Your task to perform on an android device: turn on wifi Image 0: 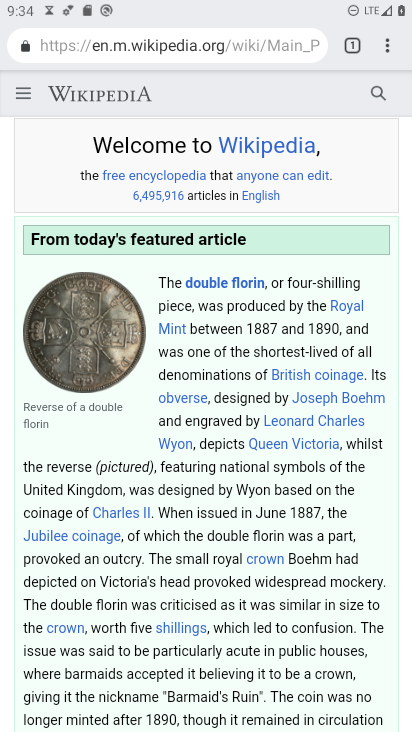
Step 0: press home button
Your task to perform on an android device: turn on wifi Image 1: 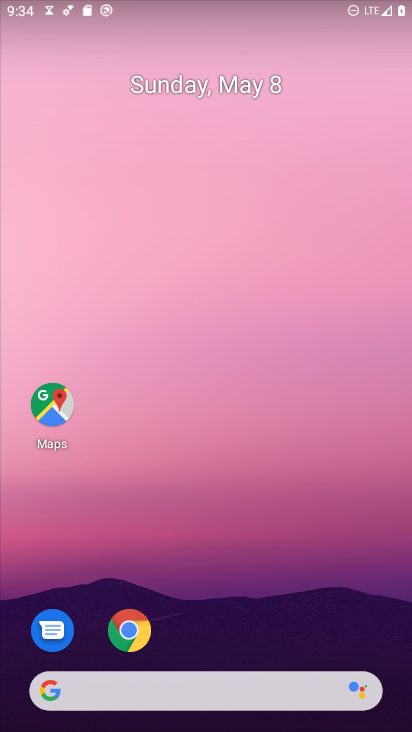
Step 1: drag from (163, 668) to (317, 8)
Your task to perform on an android device: turn on wifi Image 2: 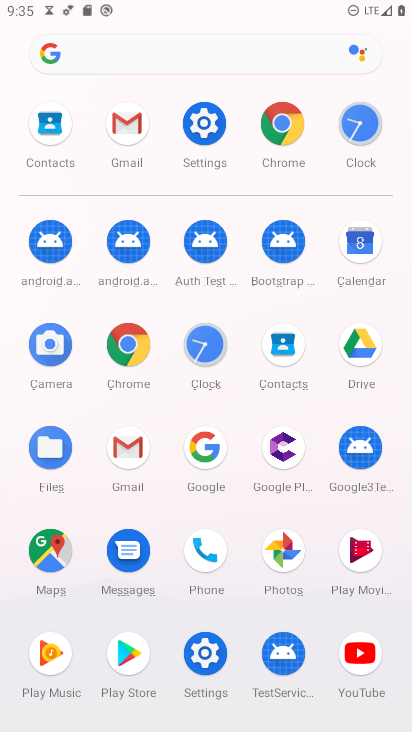
Step 2: click (209, 129)
Your task to perform on an android device: turn on wifi Image 3: 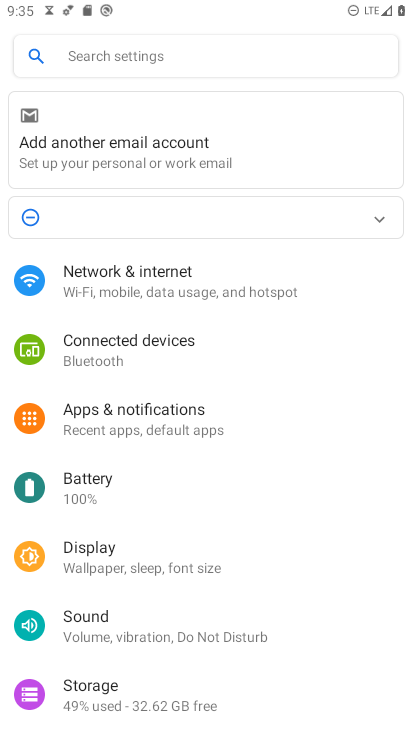
Step 3: click (163, 290)
Your task to perform on an android device: turn on wifi Image 4: 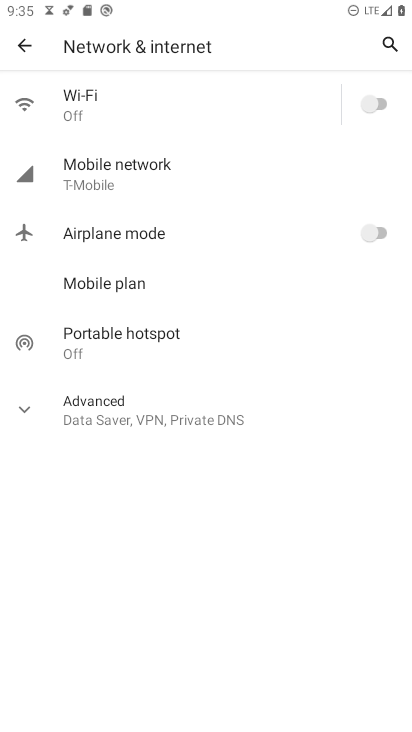
Step 4: click (384, 99)
Your task to perform on an android device: turn on wifi Image 5: 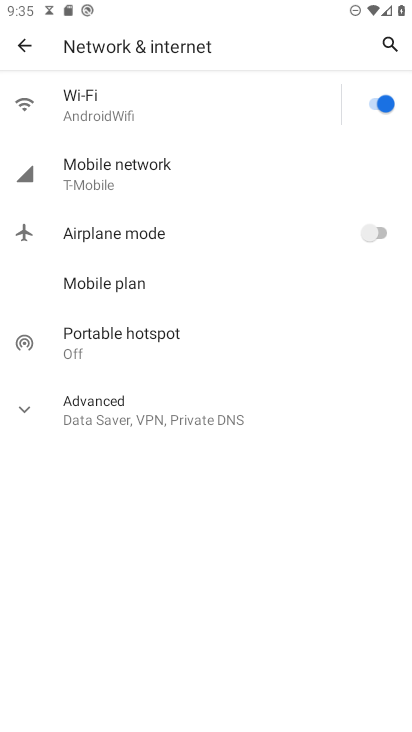
Step 5: task complete